Your task to perform on an android device: clear all cookies in the chrome app Image 0: 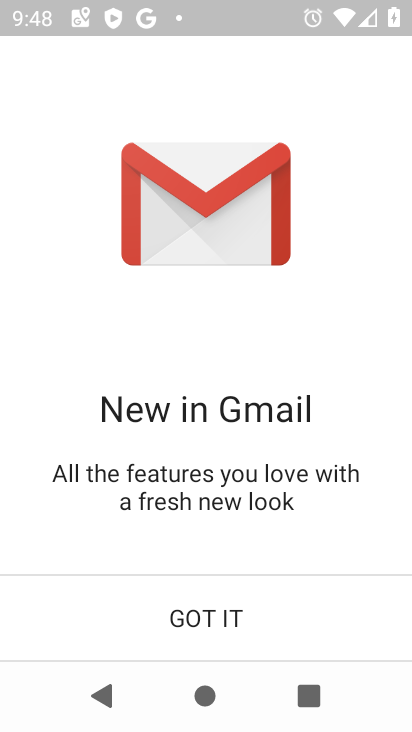
Step 0: press home button
Your task to perform on an android device: clear all cookies in the chrome app Image 1: 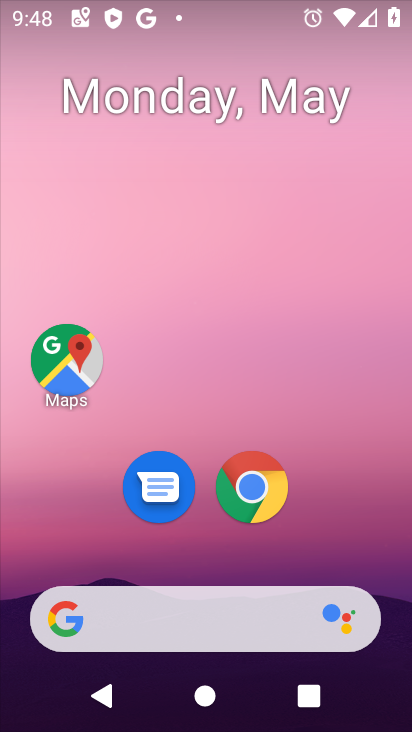
Step 1: click (256, 497)
Your task to perform on an android device: clear all cookies in the chrome app Image 2: 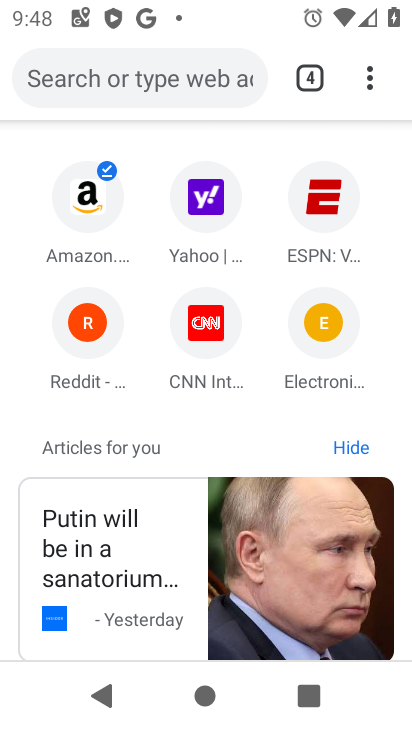
Step 2: click (380, 75)
Your task to perform on an android device: clear all cookies in the chrome app Image 3: 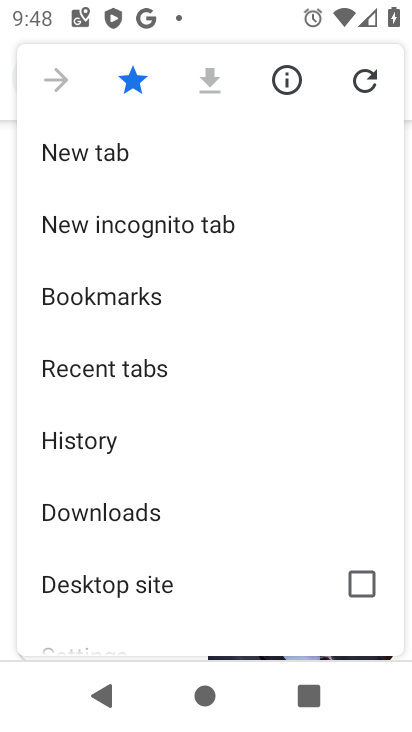
Step 3: click (72, 438)
Your task to perform on an android device: clear all cookies in the chrome app Image 4: 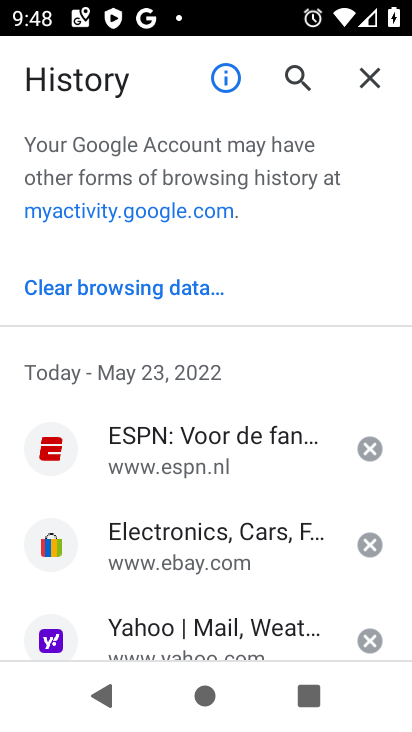
Step 4: click (105, 283)
Your task to perform on an android device: clear all cookies in the chrome app Image 5: 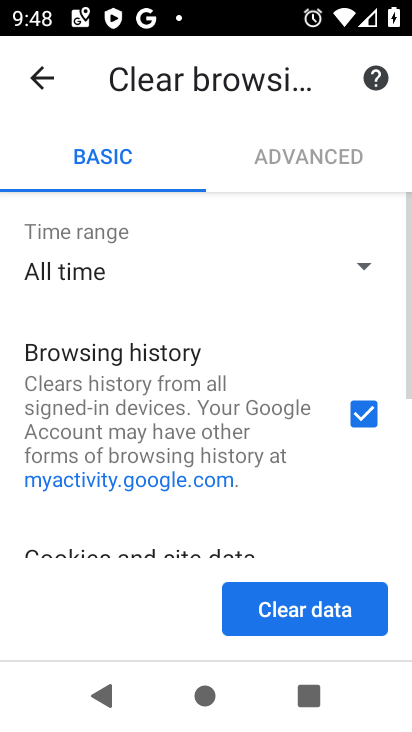
Step 5: click (368, 414)
Your task to perform on an android device: clear all cookies in the chrome app Image 6: 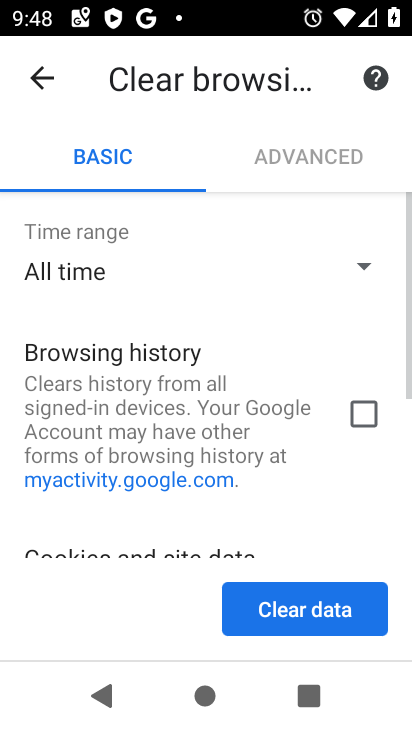
Step 6: drag from (186, 423) to (211, 109)
Your task to perform on an android device: clear all cookies in the chrome app Image 7: 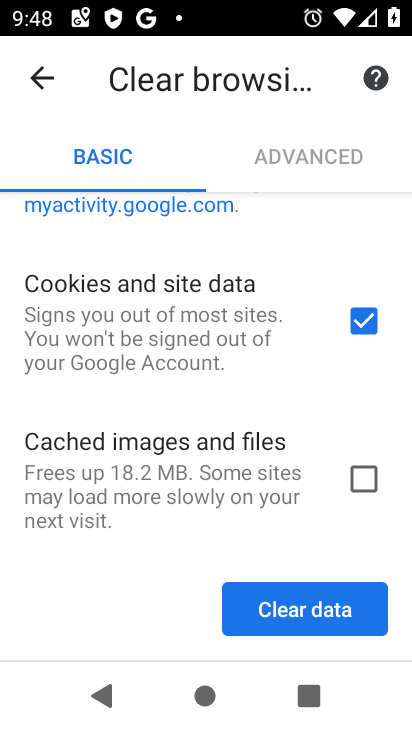
Step 7: click (328, 601)
Your task to perform on an android device: clear all cookies in the chrome app Image 8: 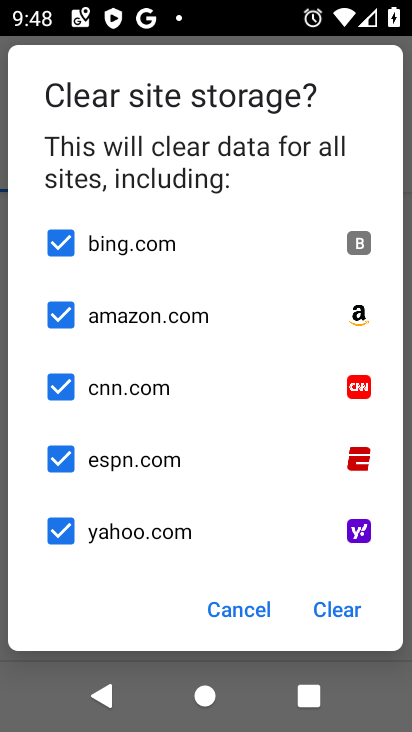
Step 8: click (334, 601)
Your task to perform on an android device: clear all cookies in the chrome app Image 9: 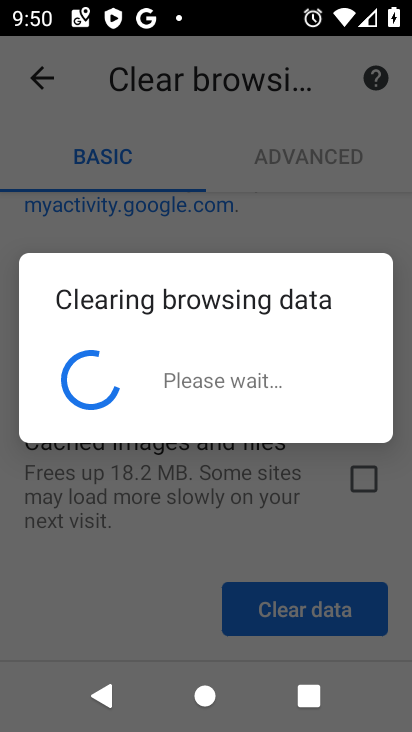
Step 9: task complete